Your task to perform on an android device: Do I have any events tomorrow? Image 0: 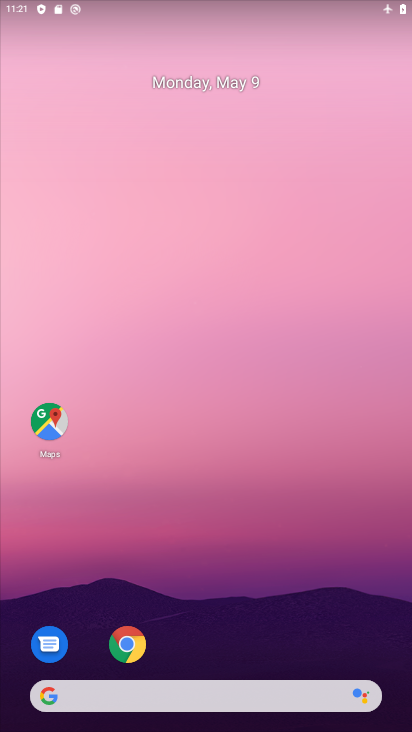
Step 0: drag from (211, 620) to (223, 177)
Your task to perform on an android device: Do I have any events tomorrow? Image 1: 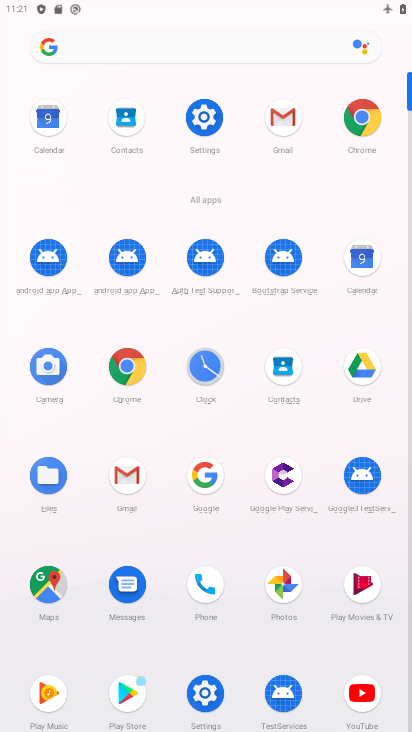
Step 1: click (362, 269)
Your task to perform on an android device: Do I have any events tomorrow? Image 2: 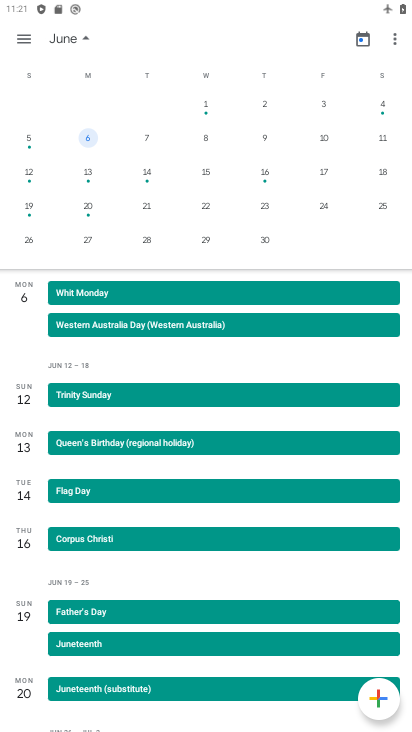
Step 2: click (22, 36)
Your task to perform on an android device: Do I have any events tomorrow? Image 3: 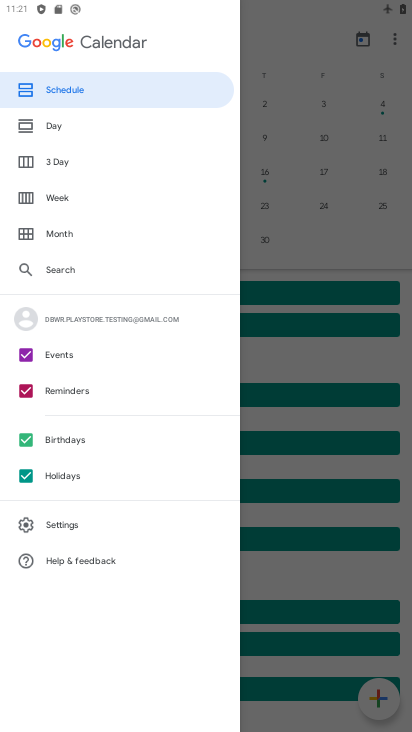
Step 3: click (86, 356)
Your task to perform on an android device: Do I have any events tomorrow? Image 4: 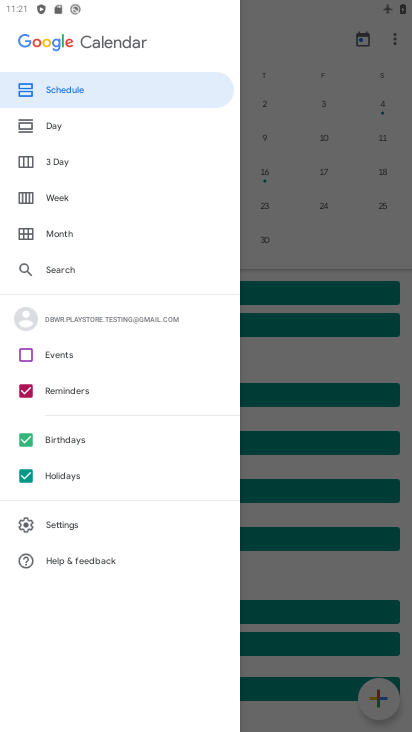
Step 4: click (61, 355)
Your task to perform on an android device: Do I have any events tomorrow? Image 5: 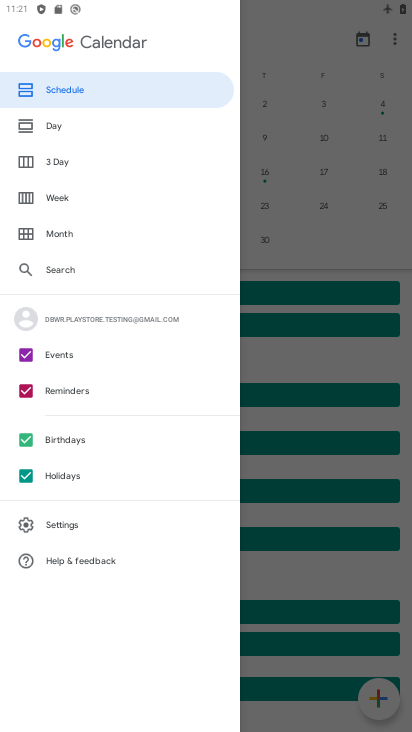
Step 5: click (74, 91)
Your task to perform on an android device: Do I have any events tomorrow? Image 6: 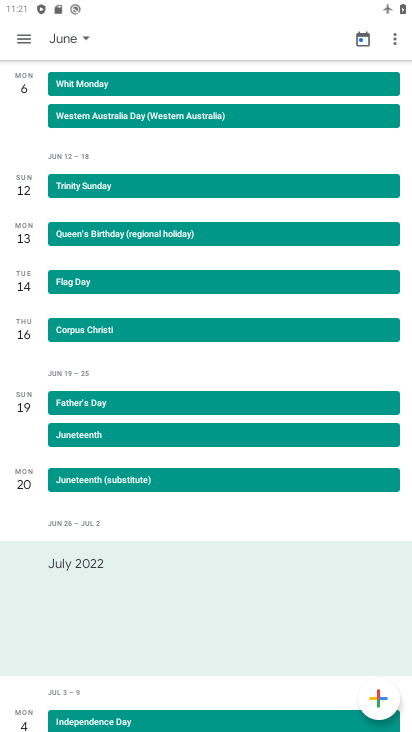
Step 6: drag from (188, 540) to (227, 592)
Your task to perform on an android device: Do I have any events tomorrow? Image 7: 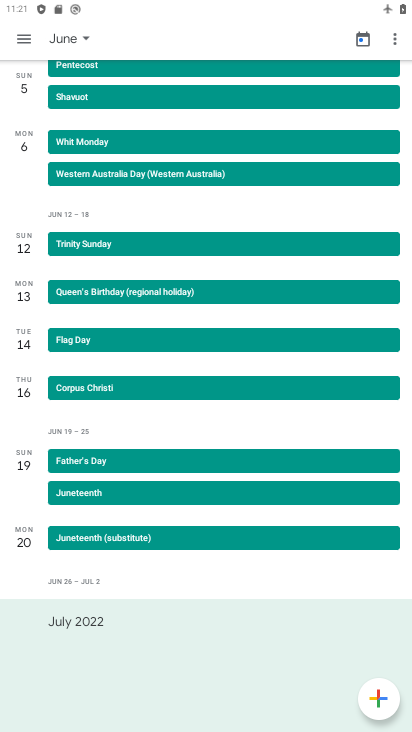
Step 7: drag from (148, 112) to (176, 462)
Your task to perform on an android device: Do I have any events tomorrow? Image 8: 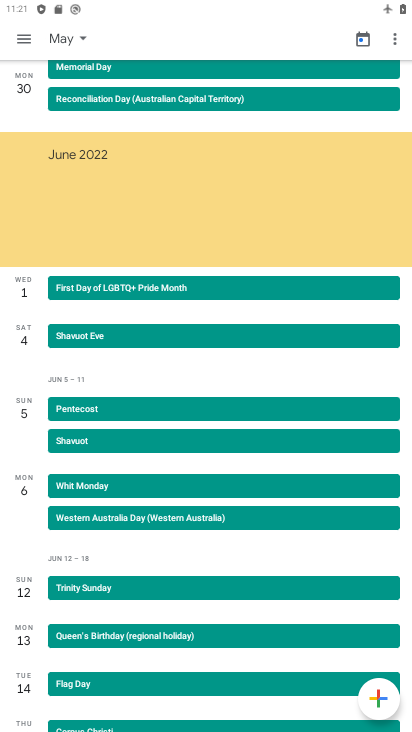
Step 8: drag from (162, 195) to (195, 559)
Your task to perform on an android device: Do I have any events tomorrow? Image 9: 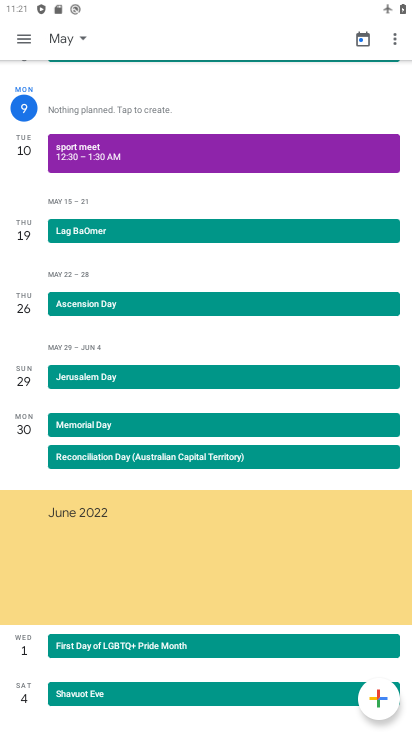
Step 9: click (83, 44)
Your task to perform on an android device: Do I have any events tomorrow? Image 10: 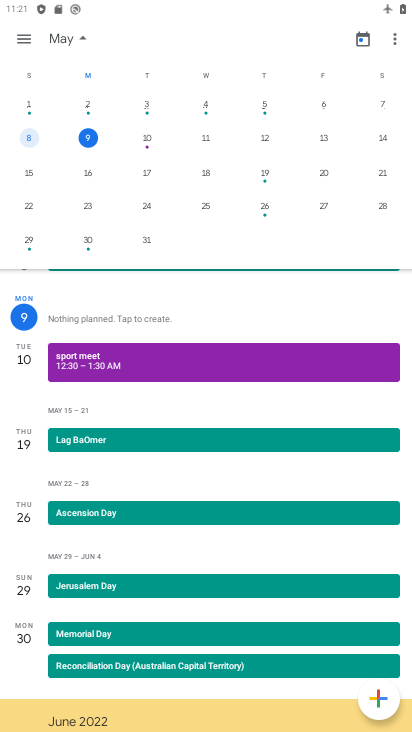
Step 10: click (119, 152)
Your task to perform on an android device: Do I have any events tomorrow? Image 11: 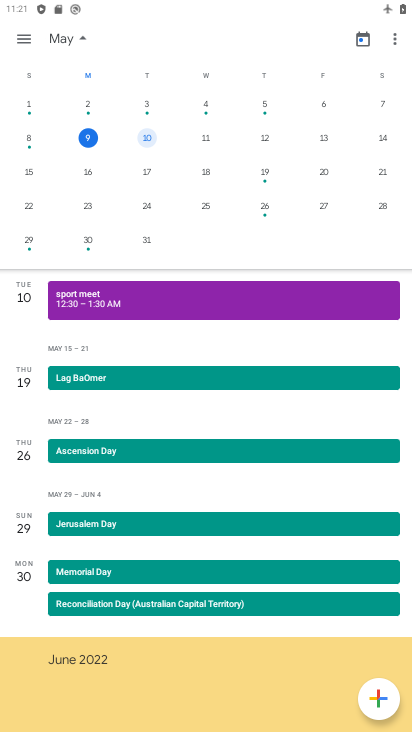
Step 11: click (142, 138)
Your task to perform on an android device: Do I have any events tomorrow? Image 12: 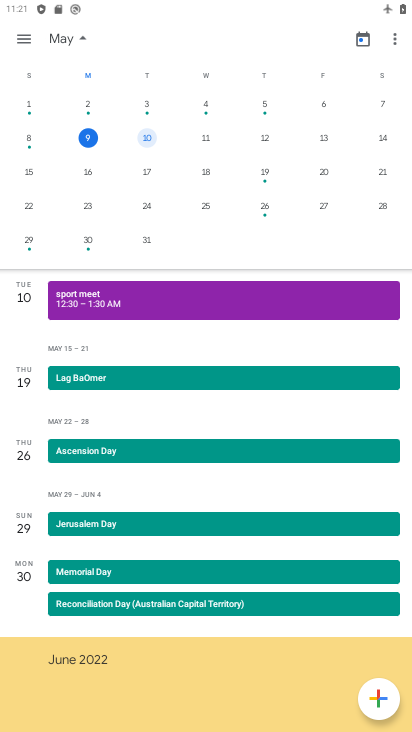
Step 12: click (161, 305)
Your task to perform on an android device: Do I have any events tomorrow? Image 13: 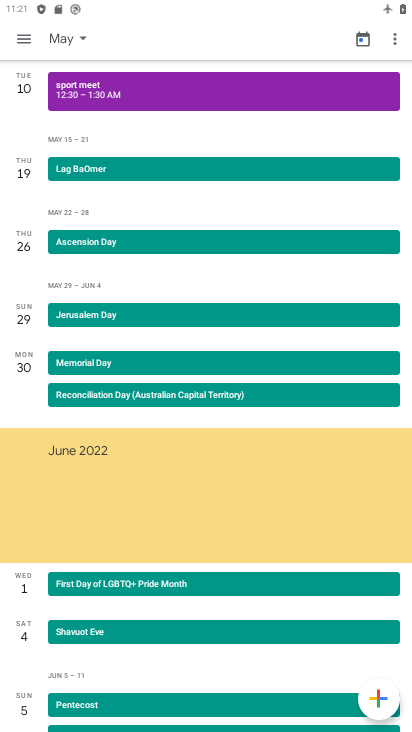
Step 13: task complete